Your task to perform on an android device: What's the weather going to be this weekend? Image 0: 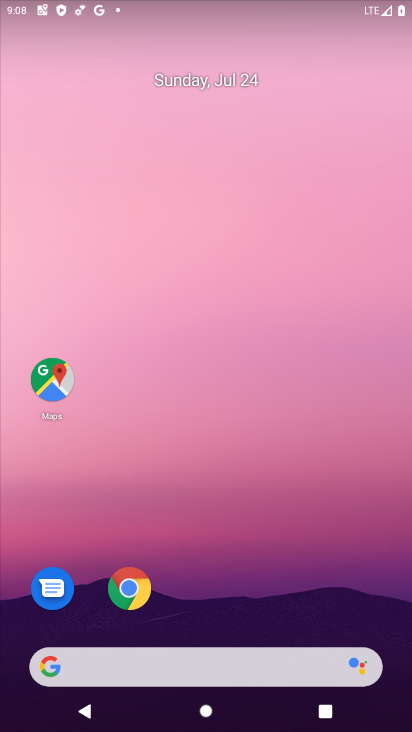
Step 0: click (139, 607)
Your task to perform on an android device: What's the weather going to be this weekend? Image 1: 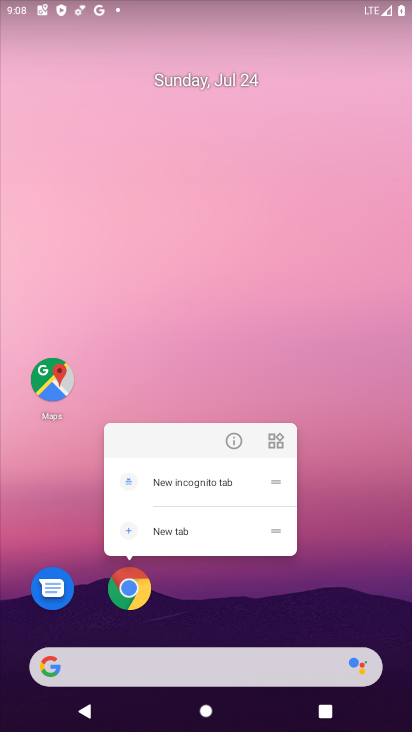
Step 1: click (139, 607)
Your task to perform on an android device: What's the weather going to be this weekend? Image 2: 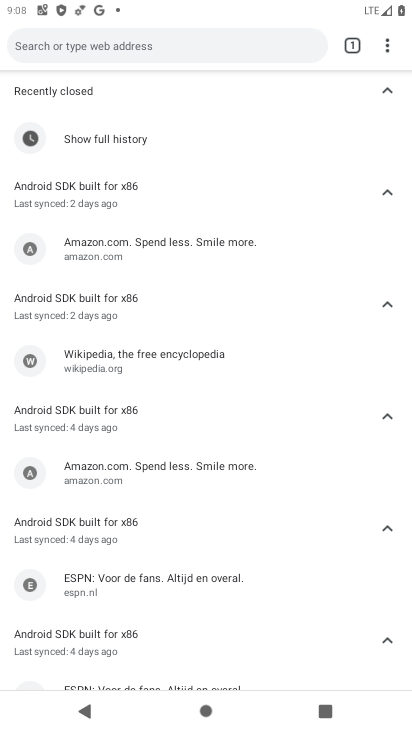
Step 2: click (134, 43)
Your task to perform on an android device: What's the weather going to be this weekend? Image 3: 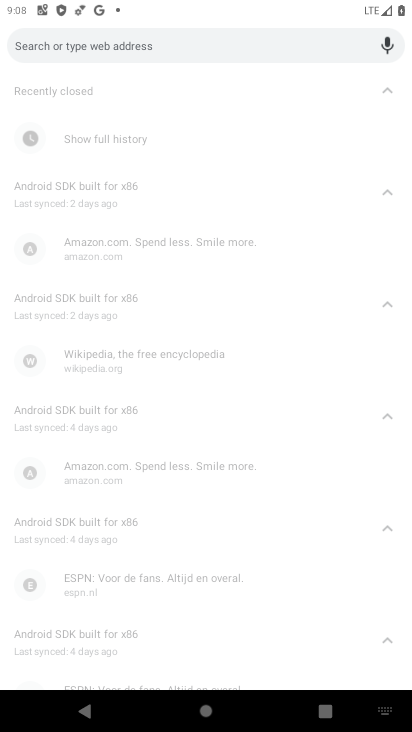
Step 3: type "weather this weekend"
Your task to perform on an android device: What's the weather going to be this weekend? Image 4: 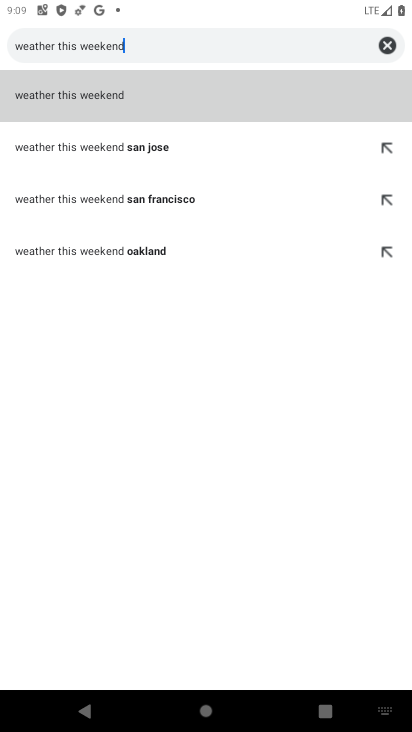
Step 4: click (222, 101)
Your task to perform on an android device: What's the weather going to be this weekend? Image 5: 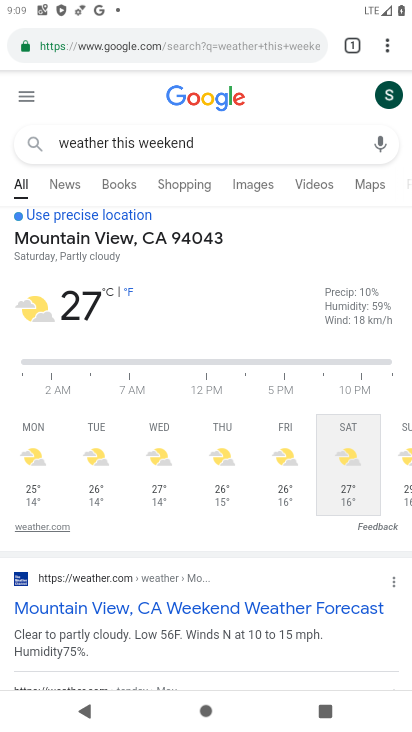
Step 5: task complete